Your task to perform on an android device: Open maps Image 0: 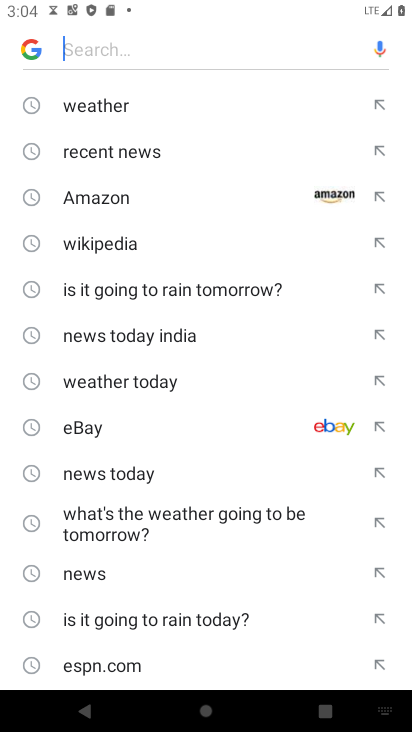
Step 0: press home button
Your task to perform on an android device: Open maps Image 1: 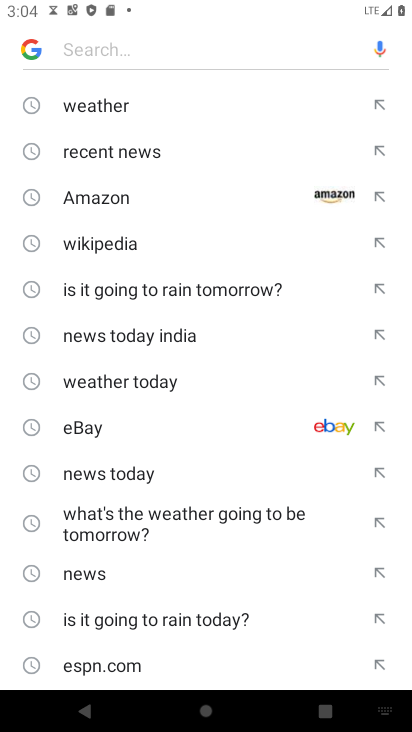
Step 1: press home button
Your task to perform on an android device: Open maps Image 2: 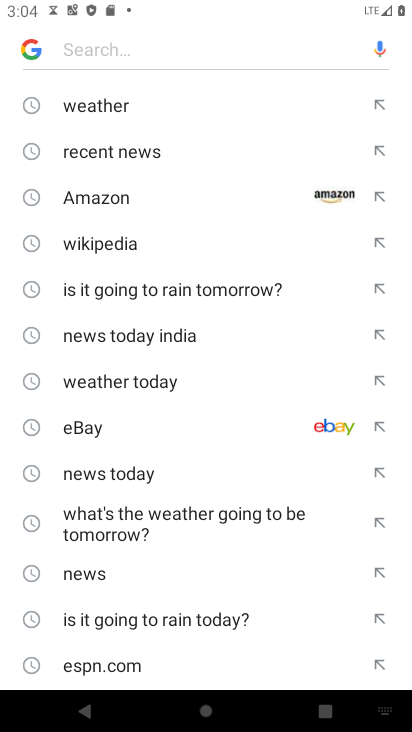
Step 2: click (234, 362)
Your task to perform on an android device: Open maps Image 3: 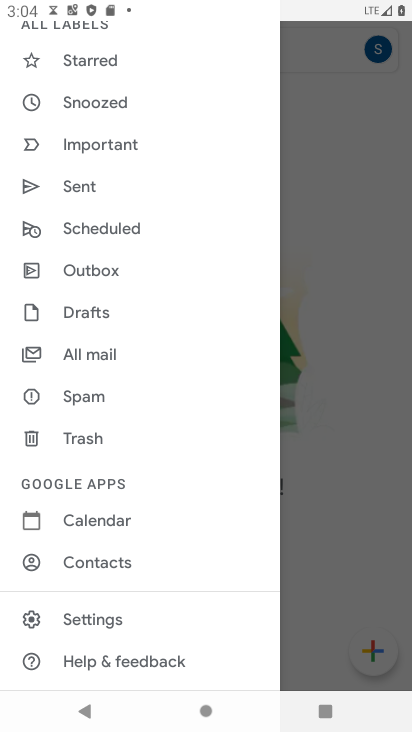
Step 3: press home button
Your task to perform on an android device: Open maps Image 4: 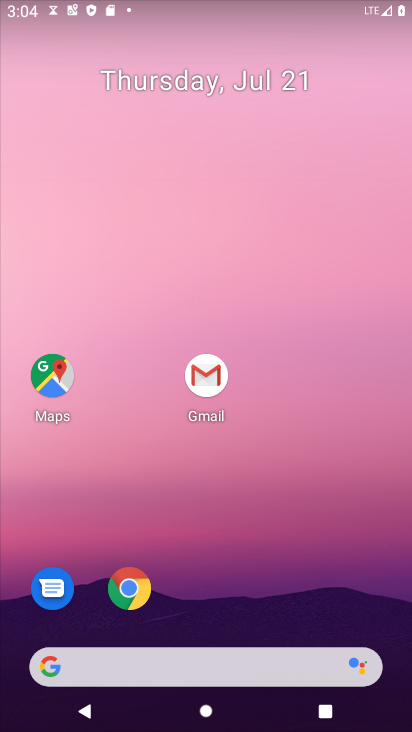
Step 4: click (52, 368)
Your task to perform on an android device: Open maps Image 5: 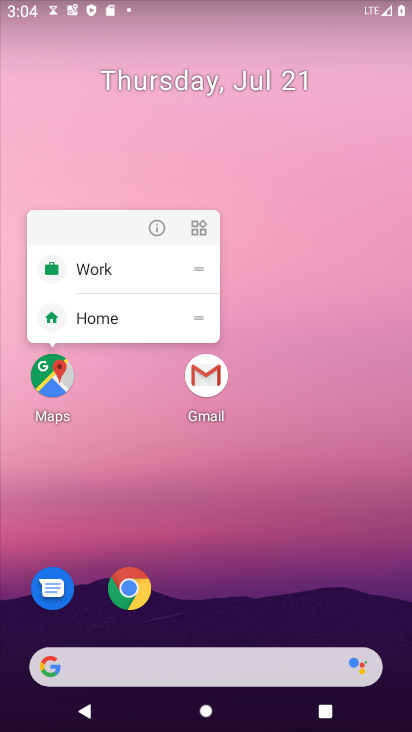
Step 5: click (160, 232)
Your task to perform on an android device: Open maps Image 6: 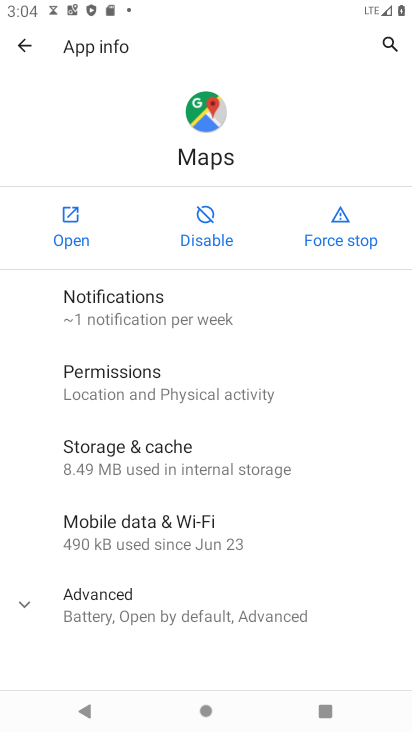
Step 6: click (59, 226)
Your task to perform on an android device: Open maps Image 7: 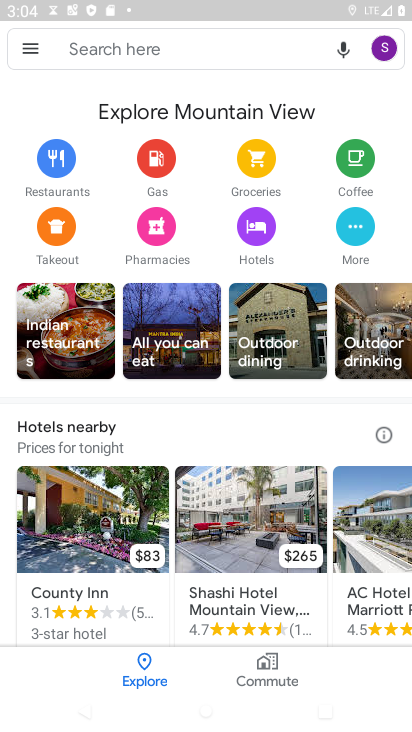
Step 7: task complete